Your task to perform on an android device: Add "apple airpods" to the cart on target Image 0: 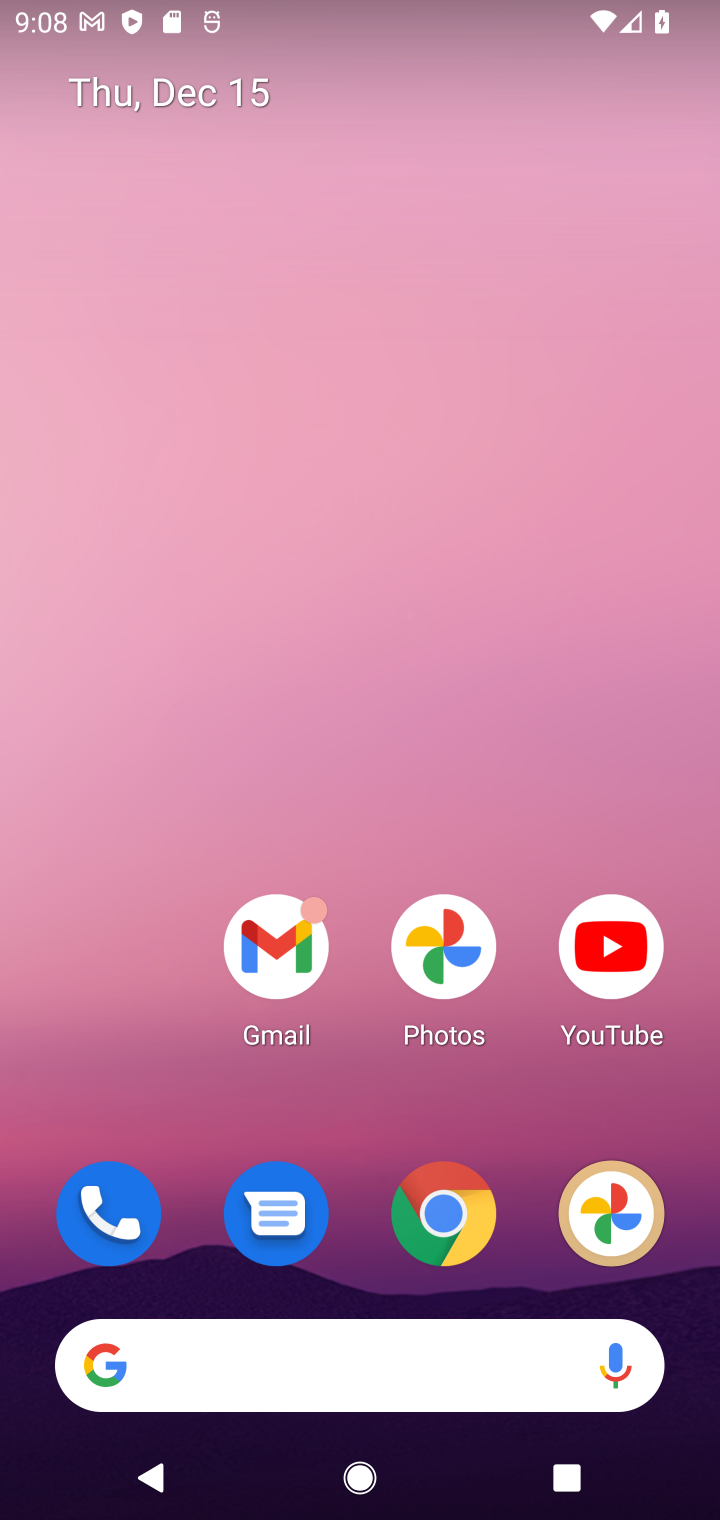
Step 0: drag from (203, 1312) to (272, 208)
Your task to perform on an android device: Add "apple airpods" to the cart on target Image 1: 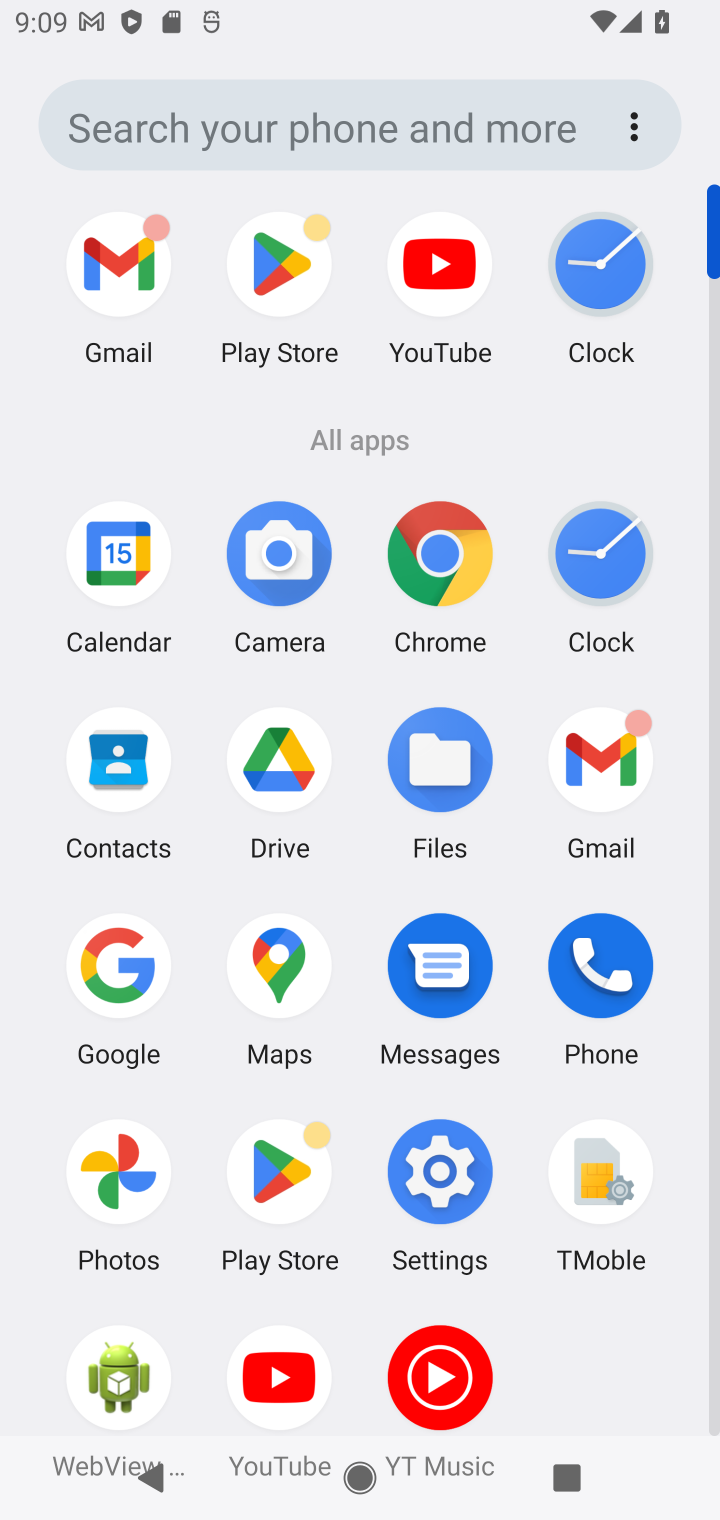
Step 1: click (92, 953)
Your task to perform on an android device: Add "apple airpods" to the cart on target Image 2: 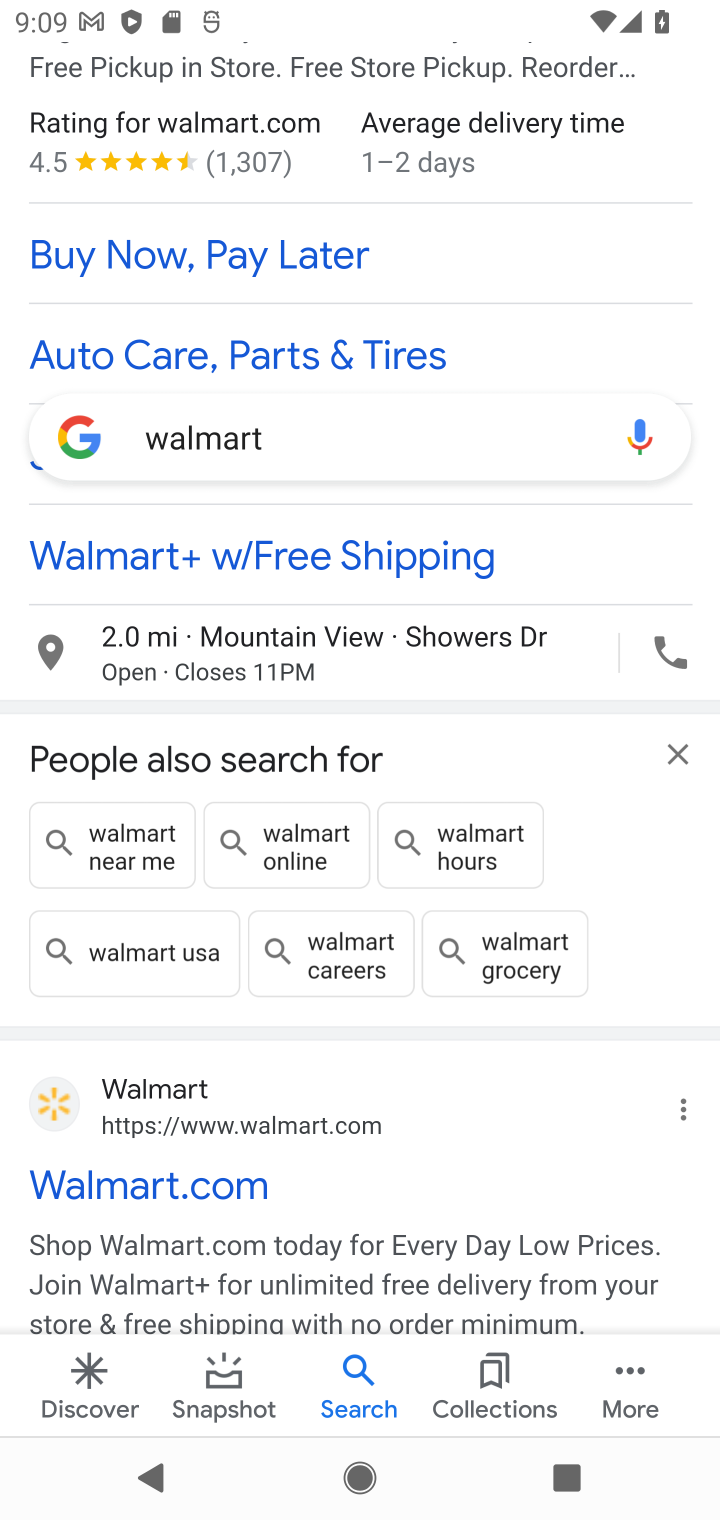
Step 2: drag from (196, 287) to (263, 1282)
Your task to perform on an android device: Add "apple airpods" to the cart on target Image 3: 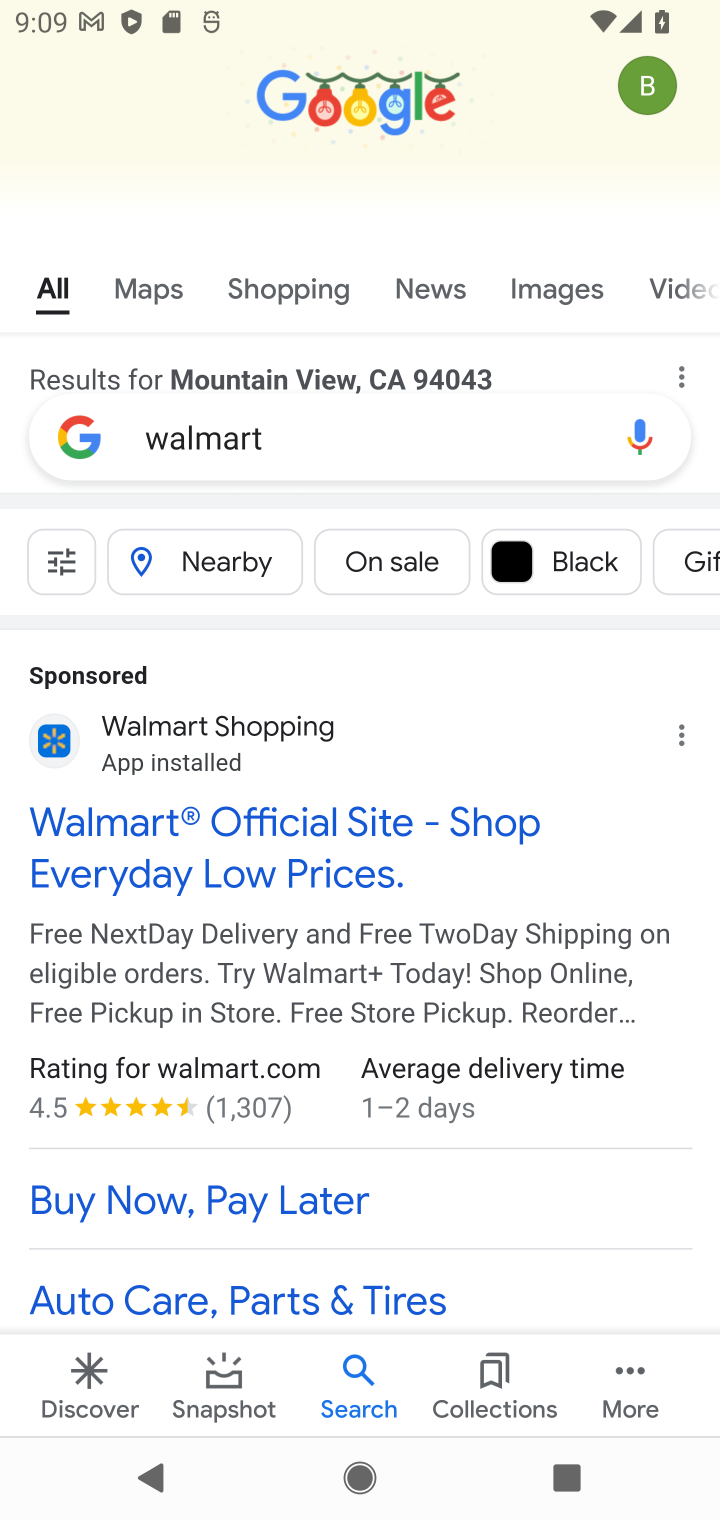
Step 3: click (207, 448)
Your task to perform on an android device: Add "apple airpods" to the cart on target Image 4: 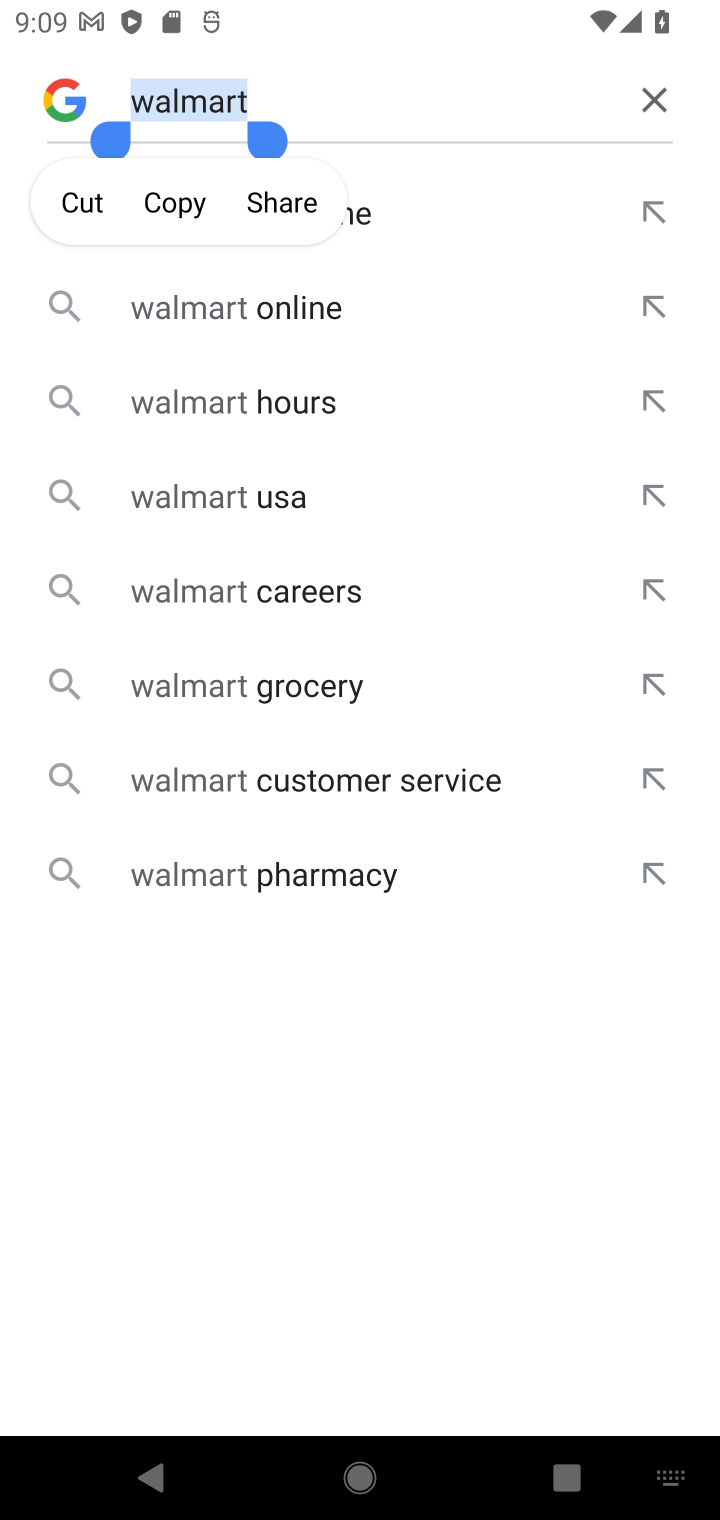
Step 4: click (662, 103)
Your task to perform on an android device: Add "apple airpods" to the cart on target Image 5: 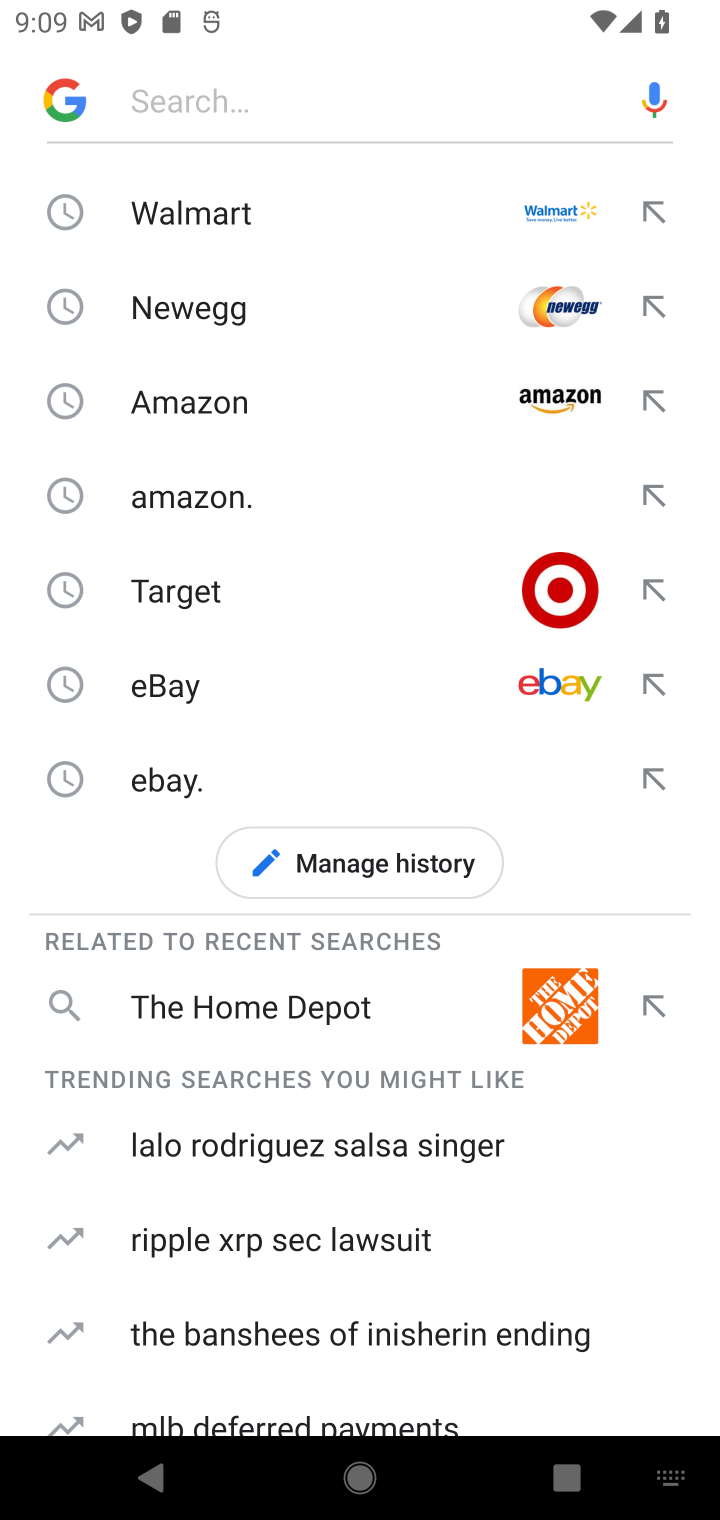
Step 5: click (201, 588)
Your task to perform on an android device: Add "apple airpods" to the cart on target Image 6: 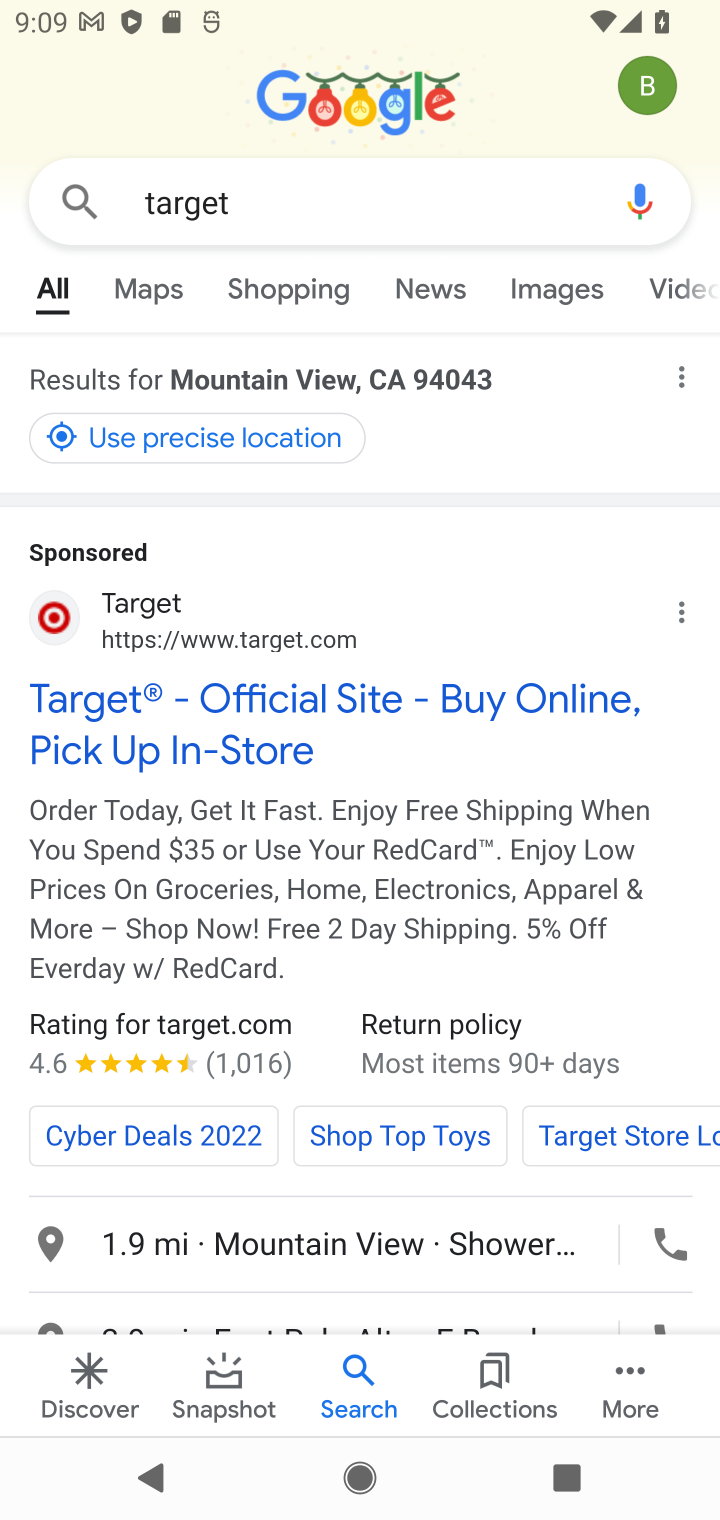
Step 6: drag from (267, 1160) to (274, 463)
Your task to perform on an android device: Add "apple airpods" to the cart on target Image 7: 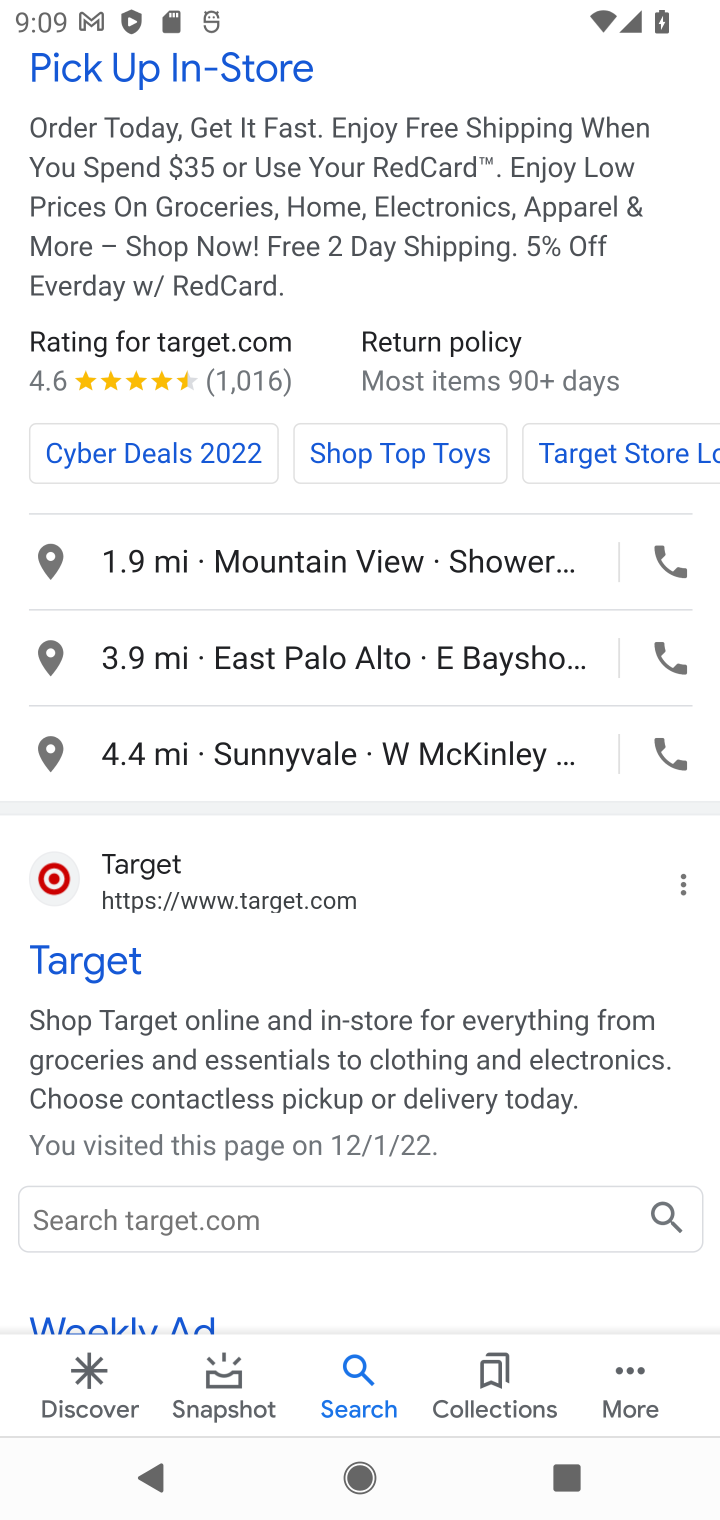
Step 7: click (41, 967)
Your task to perform on an android device: Add "apple airpods" to the cart on target Image 8: 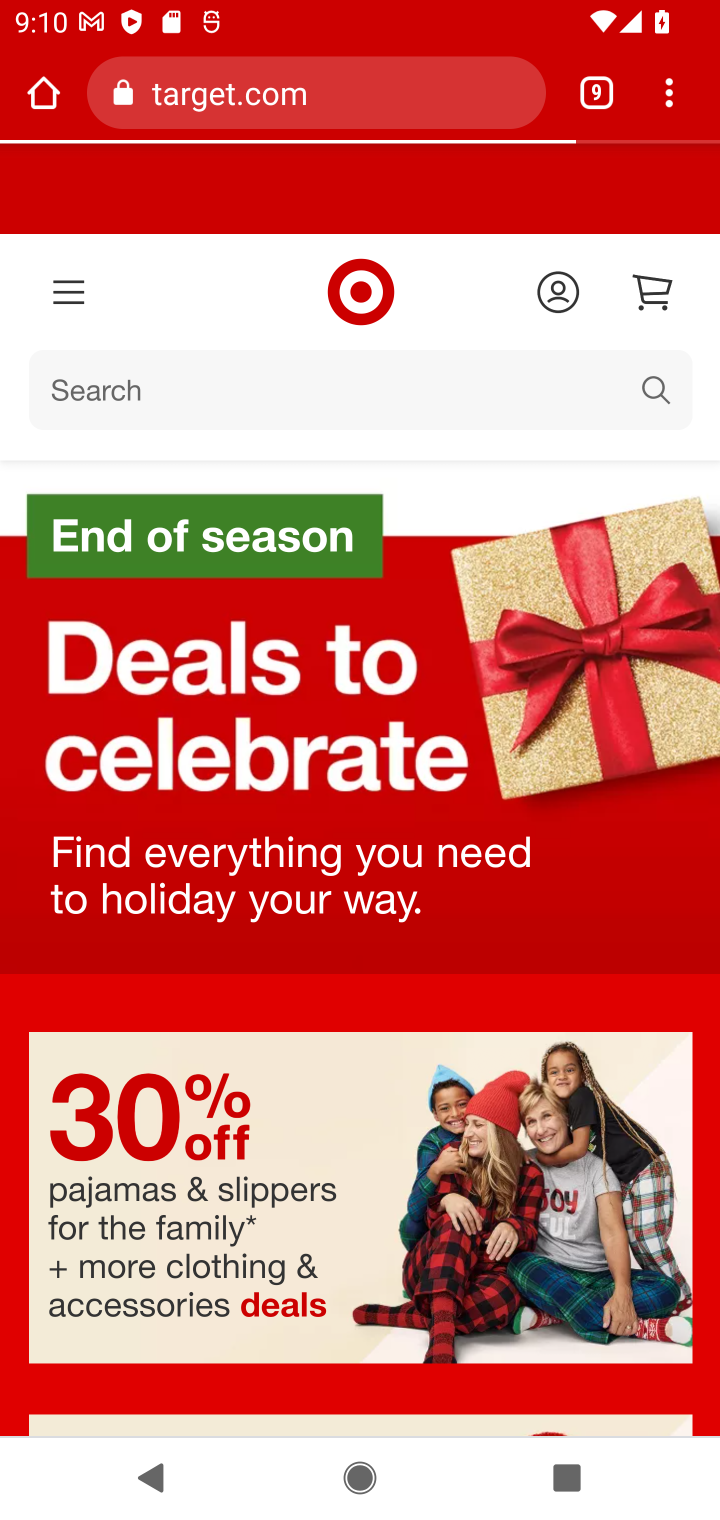
Step 8: click (251, 392)
Your task to perform on an android device: Add "apple airpods" to the cart on target Image 9: 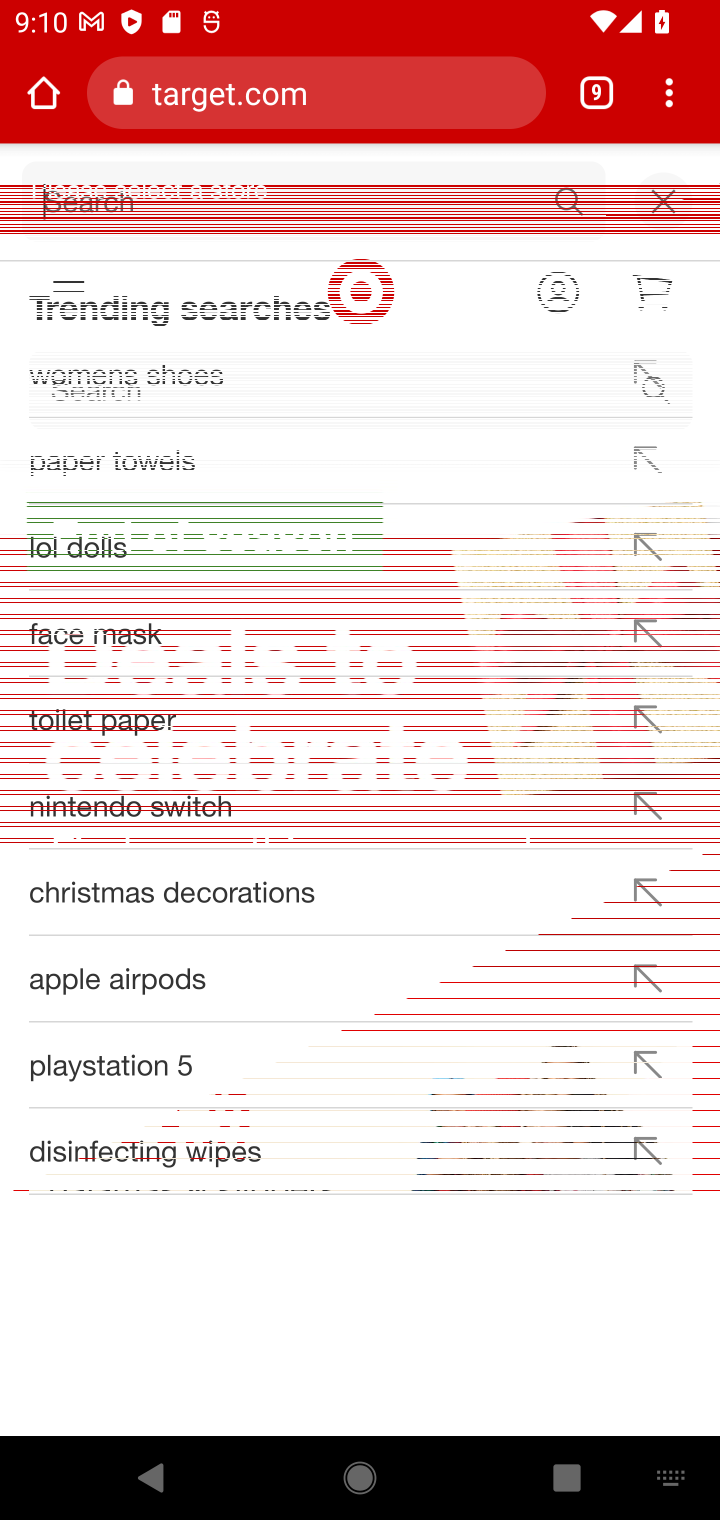
Step 9: type "apple airpods"
Your task to perform on an android device: Add "apple airpods" to the cart on target Image 10: 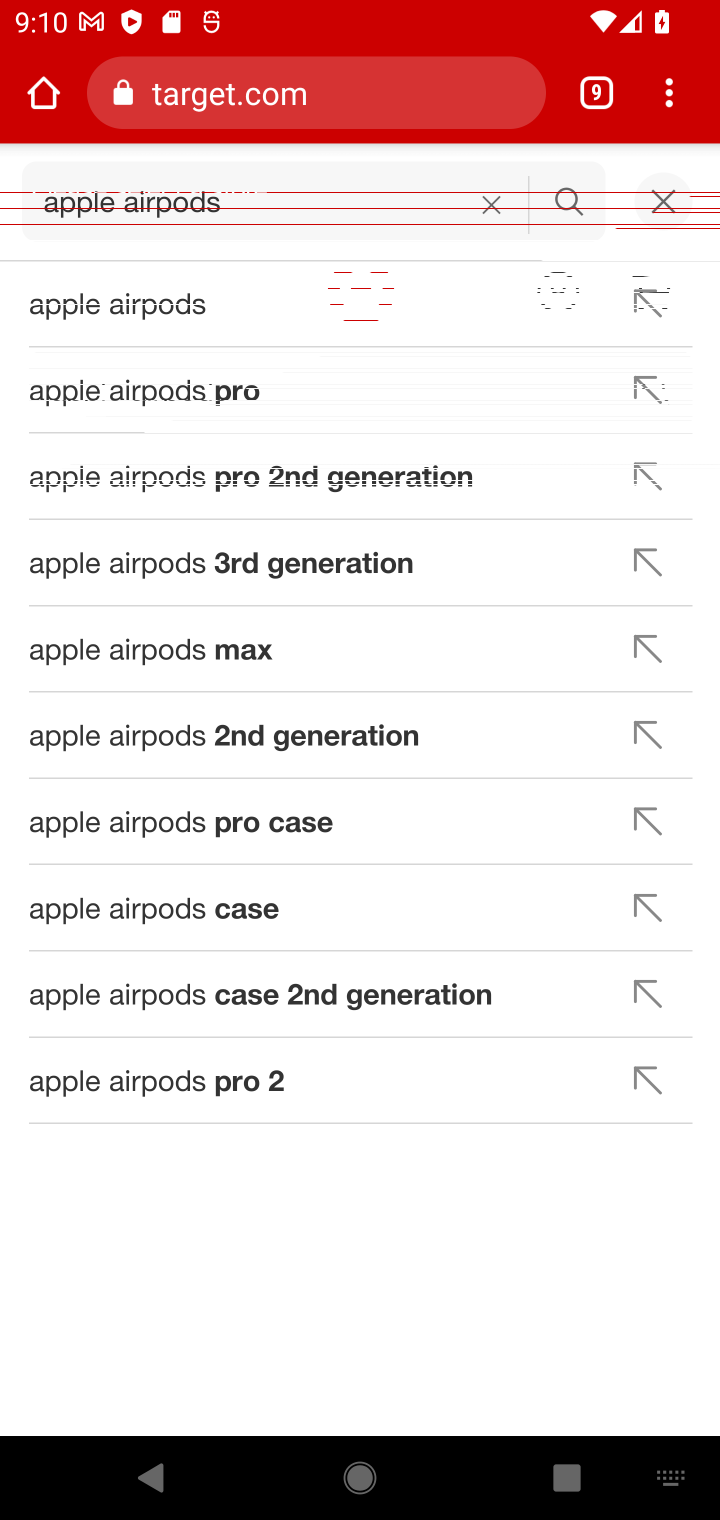
Step 10: click (59, 302)
Your task to perform on an android device: Add "apple airpods" to the cart on target Image 11: 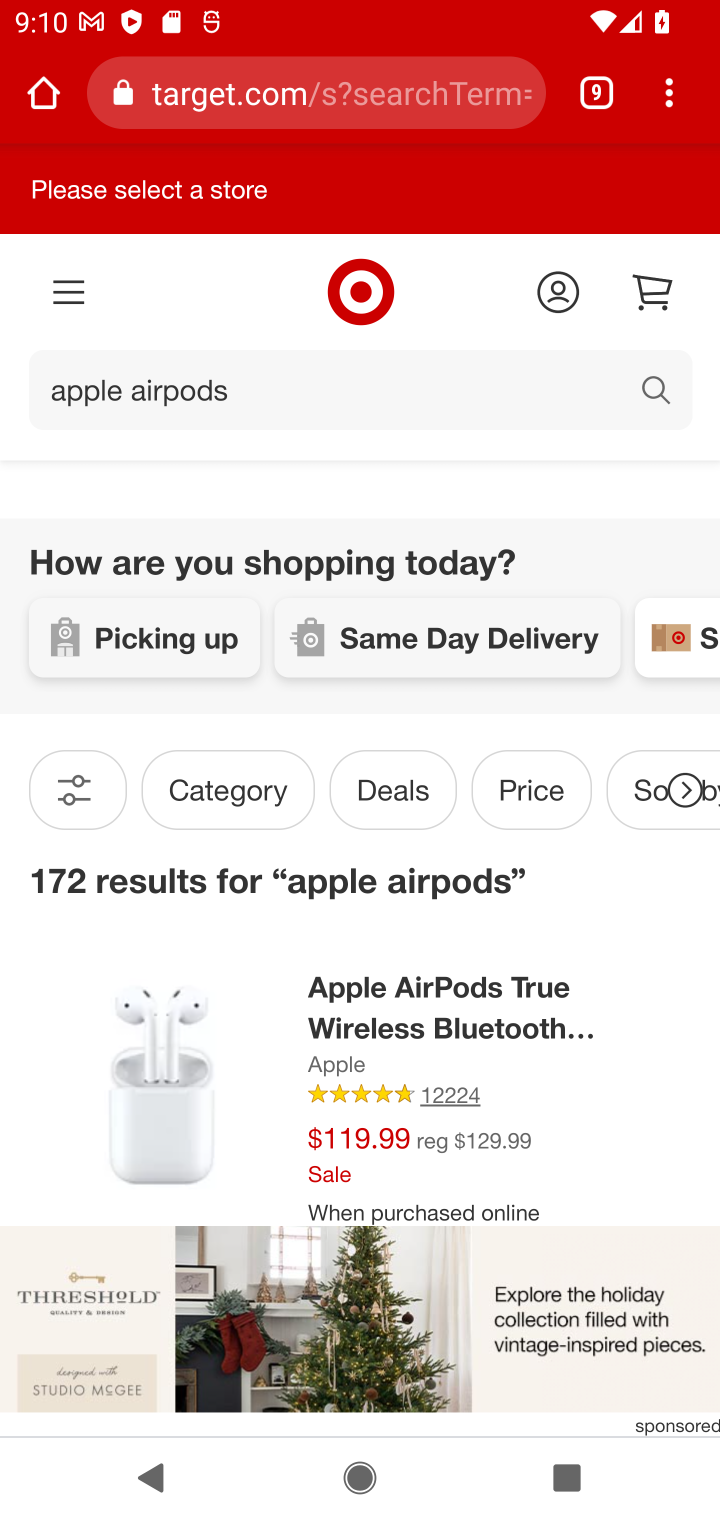
Step 11: drag from (330, 980) to (315, 545)
Your task to perform on an android device: Add "apple airpods" to the cart on target Image 12: 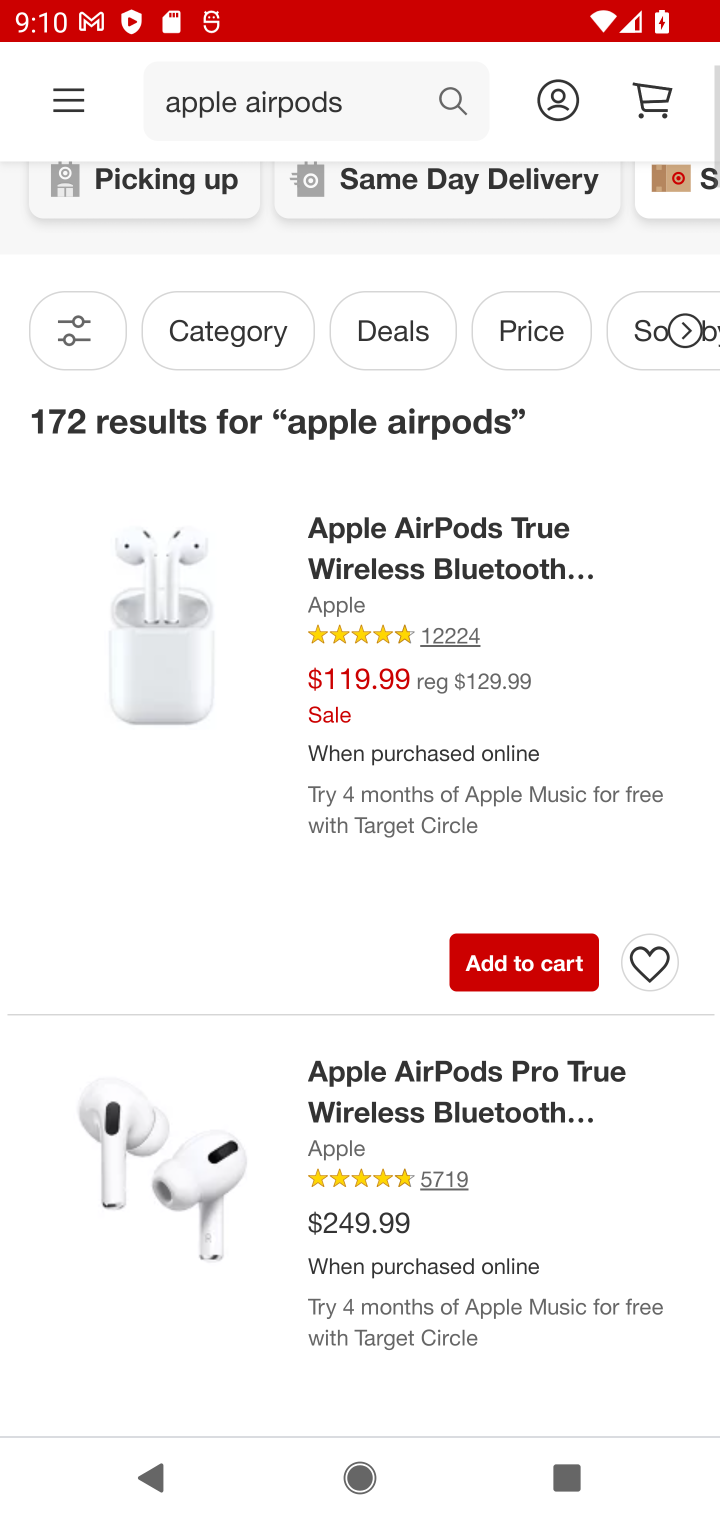
Step 12: click (525, 967)
Your task to perform on an android device: Add "apple airpods" to the cart on target Image 13: 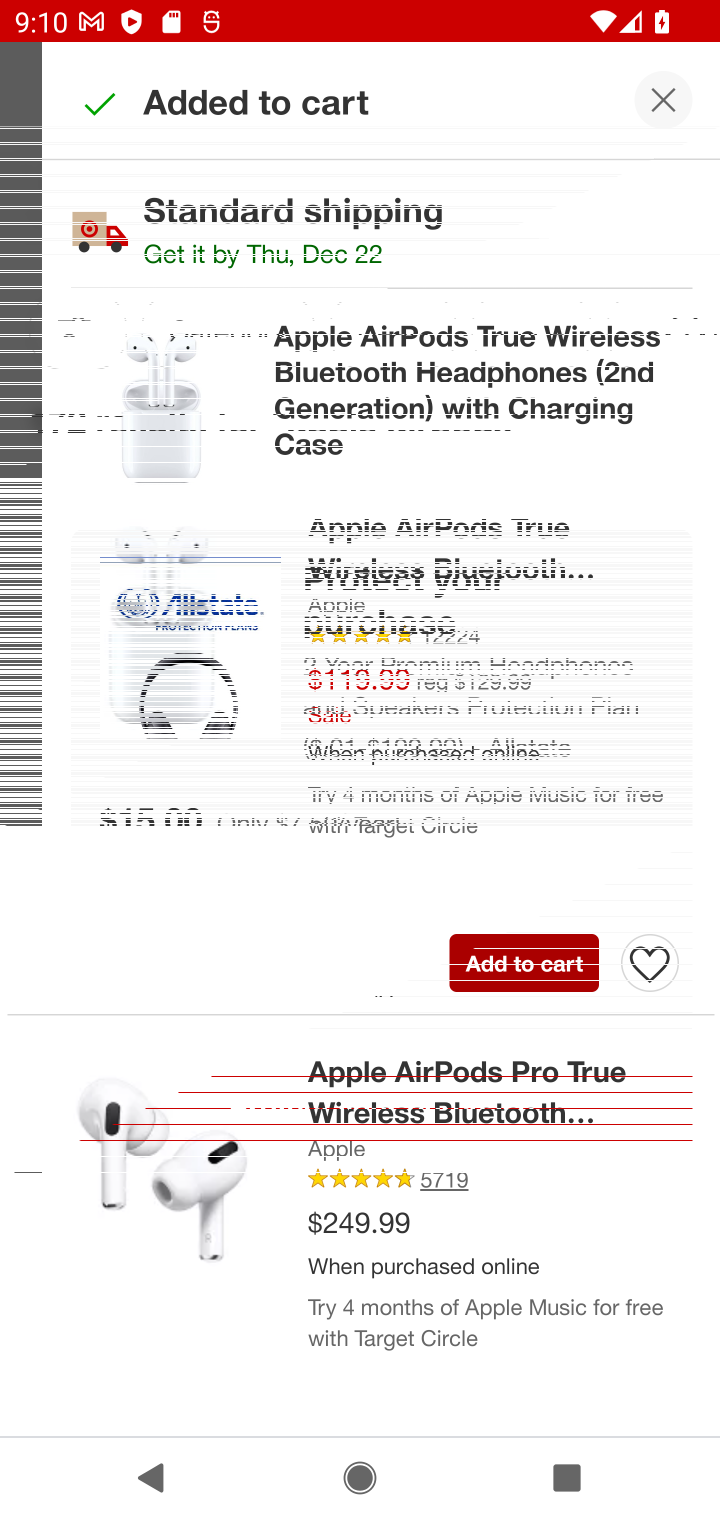
Step 13: task complete